Your task to perform on an android device: turn notification dots on Image 0: 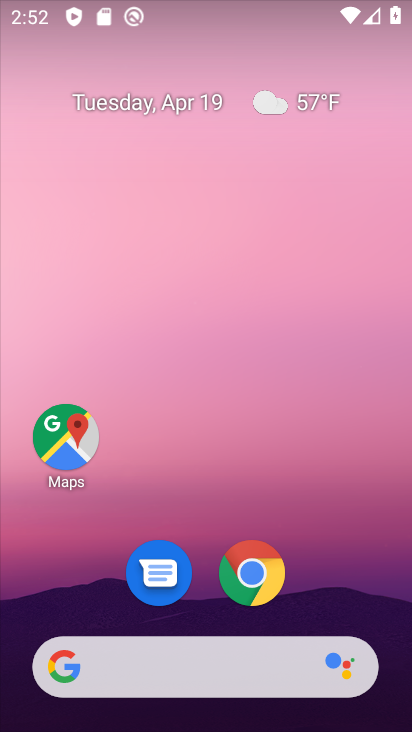
Step 0: drag from (343, 596) to (324, 54)
Your task to perform on an android device: turn notification dots on Image 1: 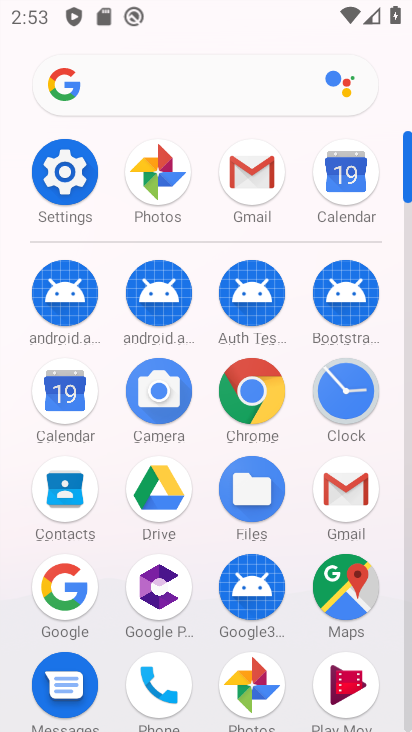
Step 1: click (71, 168)
Your task to perform on an android device: turn notification dots on Image 2: 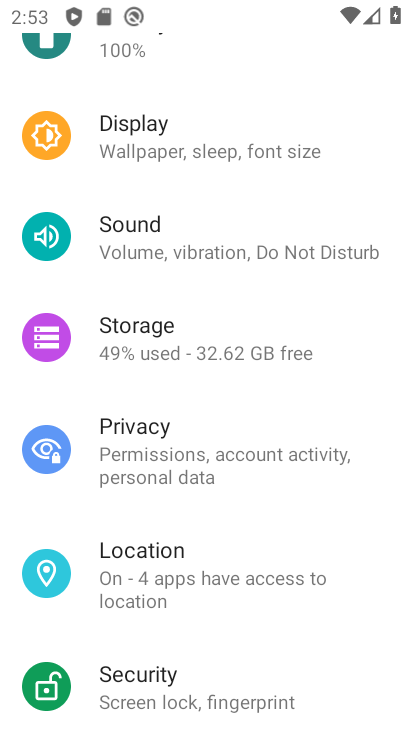
Step 2: drag from (332, 211) to (328, 534)
Your task to perform on an android device: turn notification dots on Image 3: 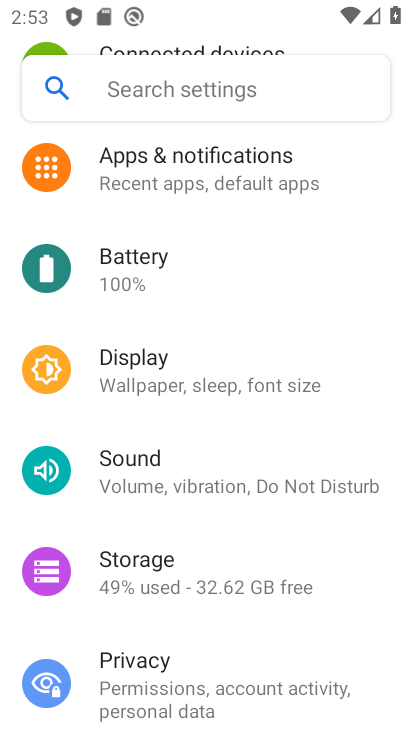
Step 3: click (215, 180)
Your task to perform on an android device: turn notification dots on Image 4: 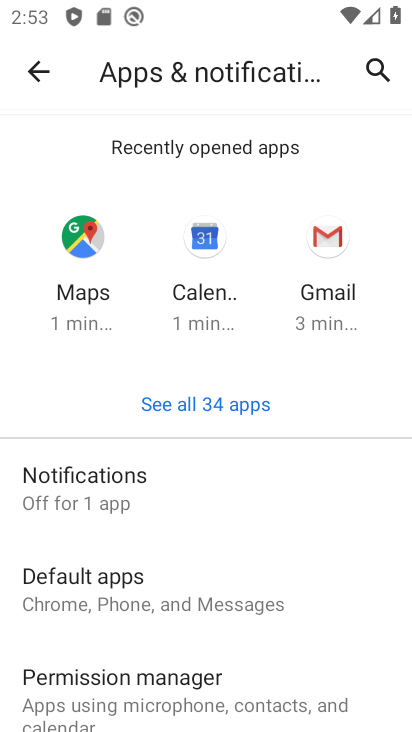
Step 4: click (73, 484)
Your task to perform on an android device: turn notification dots on Image 5: 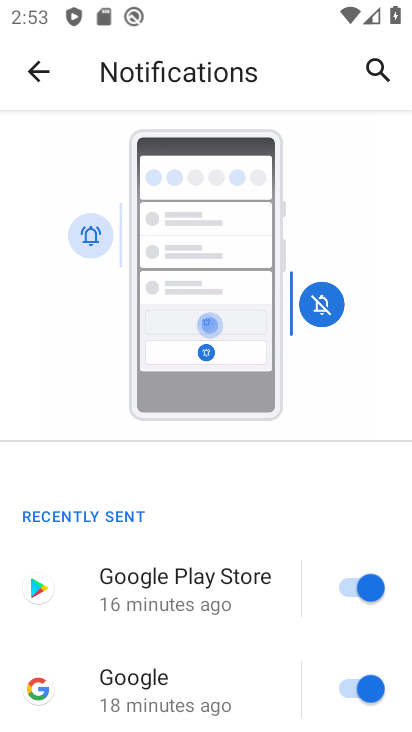
Step 5: drag from (215, 580) to (206, 149)
Your task to perform on an android device: turn notification dots on Image 6: 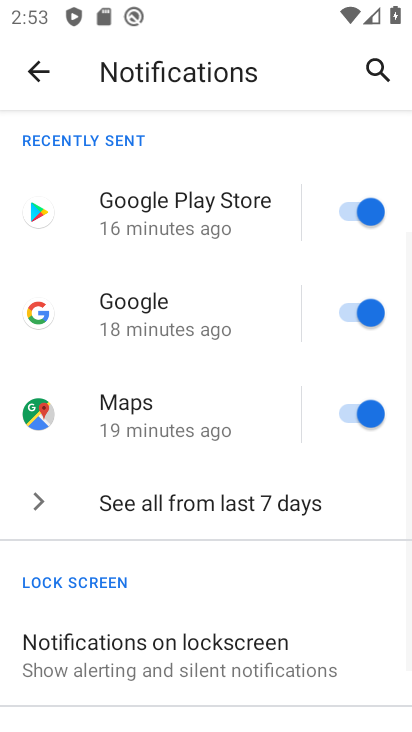
Step 6: drag from (208, 538) to (176, 166)
Your task to perform on an android device: turn notification dots on Image 7: 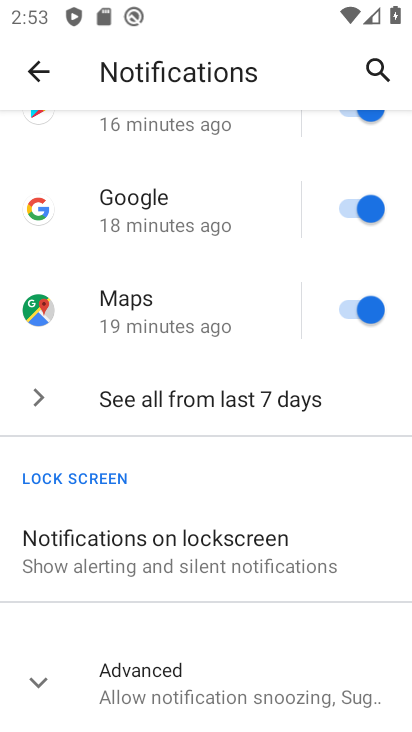
Step 7: click (31, 688)
Your task to perform on an android device: turn notification dots on Image 8: 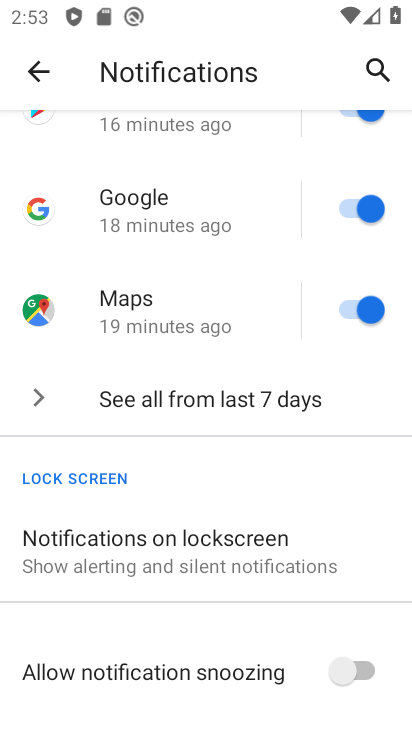
Step 8: task complete